Your task to perform on an android device: What's on Reddit today Image 0: 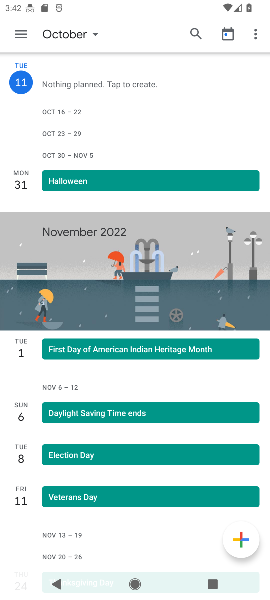
Step 0: press home button
Your task to perform on an android device: What's on Reddit today Image 1: 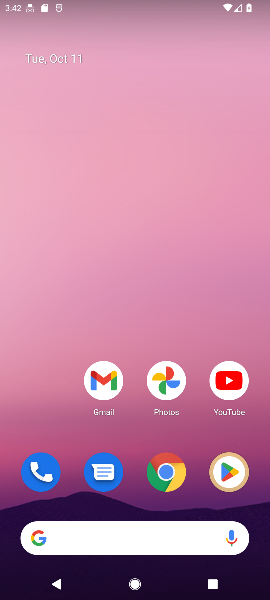
Step 1: click (148, 483)
Your task to perform on an android device: What's on Reddit today Image 2: 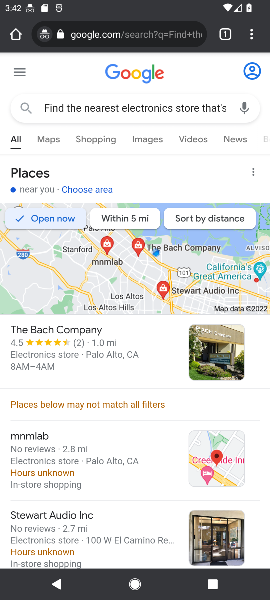
Step 2: click (126, 32)
Your task to perform on an android device: What's on Reddit today Image 3: 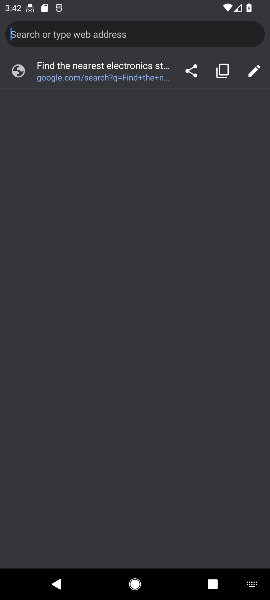
Step 3: type "What's on Reddit today"
Your task to perform on an android device: What's on Reddit today Image 4: 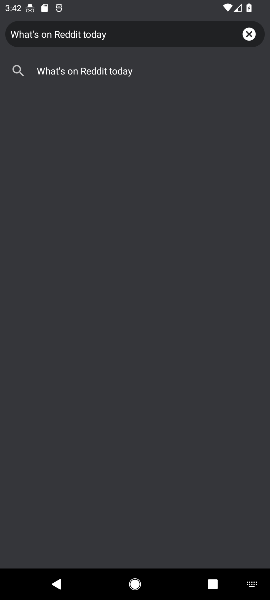
Step 4: click (94, 66)
Your task to perform on an android device: What's on Reddit today Image 5: 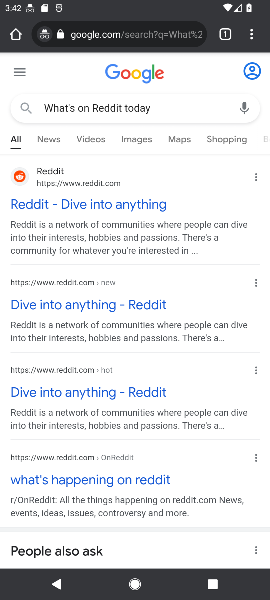
Step 5: click (74, 211)
Your task to perform on an android device: What's on Reddit today Image 6: 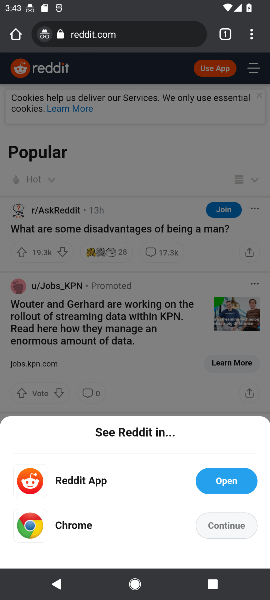
Step 6: task complete